Your task to perform on an android device: change alarm snooze length Image 0: 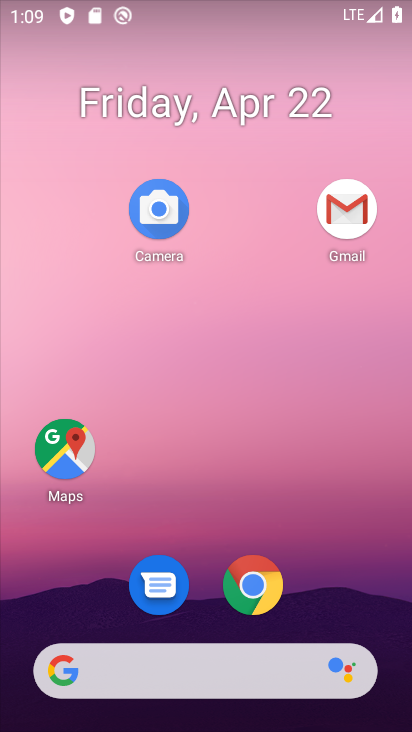
Step 0: drag from (229, 452) to (251, 100)
Your task to perform on an android device: change alarm snooze length Image 1: 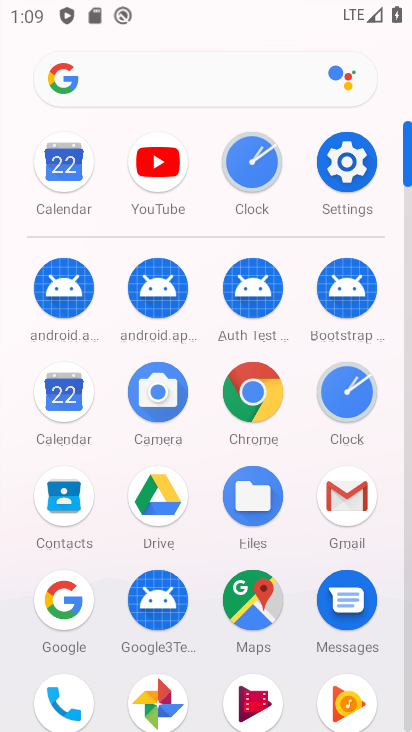
Step 1: click (248, 170)
Your task to perform on an android device: change alarm snooze length Image 2: 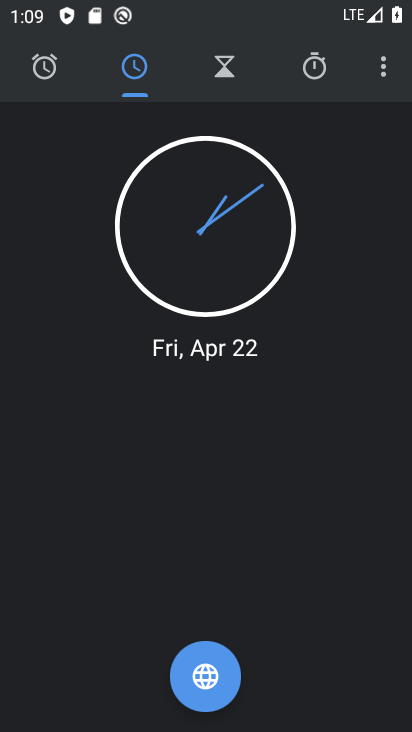
Step 2: click (381, 71)
Your task to perform on an android device: change alarm snooze length Image 3: 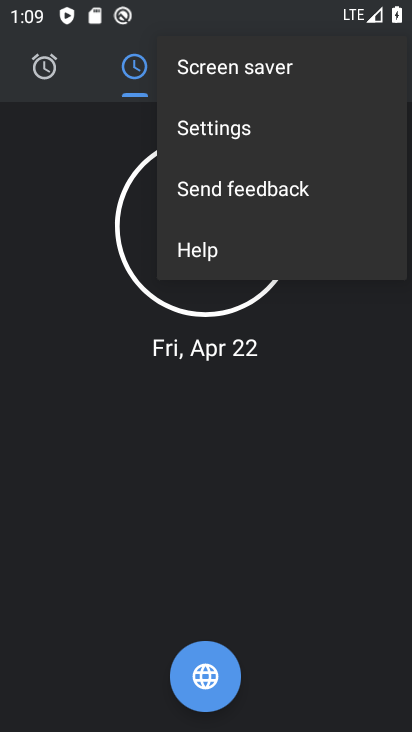
Step 3: click (304, 136)
Your task to perform on an android device: change alarm snooze length Image 4: 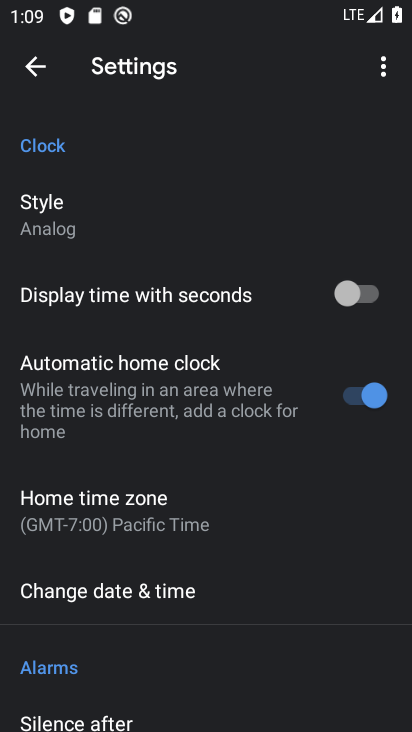
Step 4: drag from (267, 561) to (300, 140)
Your task to perform on an android device: change alarm snooze length Image 5: 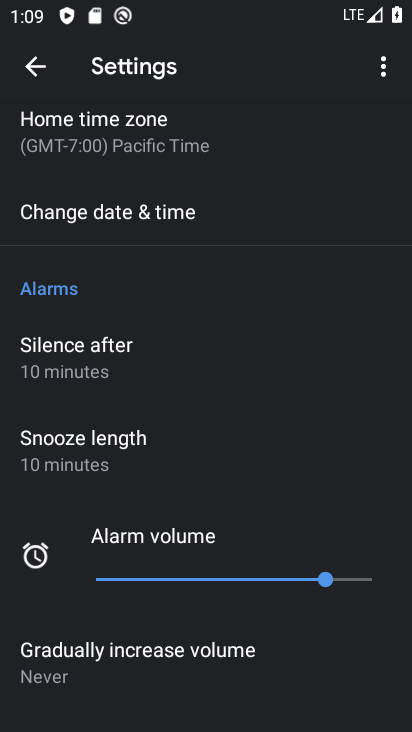
Step 5: click (174, 451)
Your task to perform on an android device: change alarm snooze length Image 6: 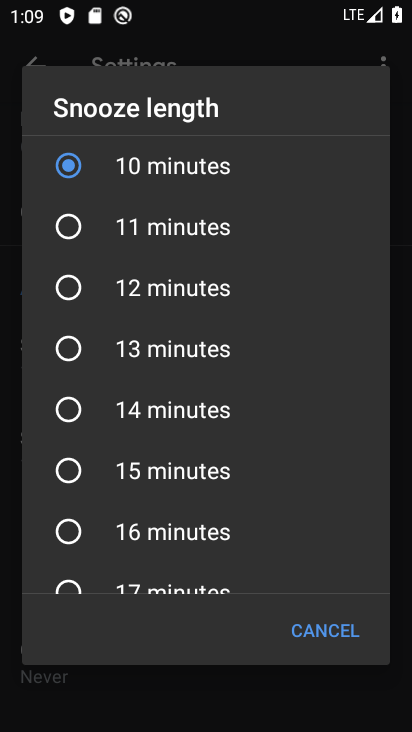
Step 6: click (73, 226)
Your task to perform on an android device: change alarm snooze length Image 7: 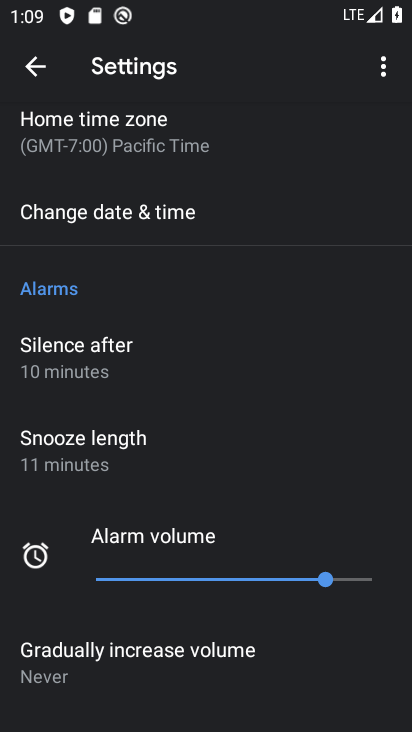
Step 7: task complete